Your task to perform on an android device: turn on translation in the chrome app Image 0: 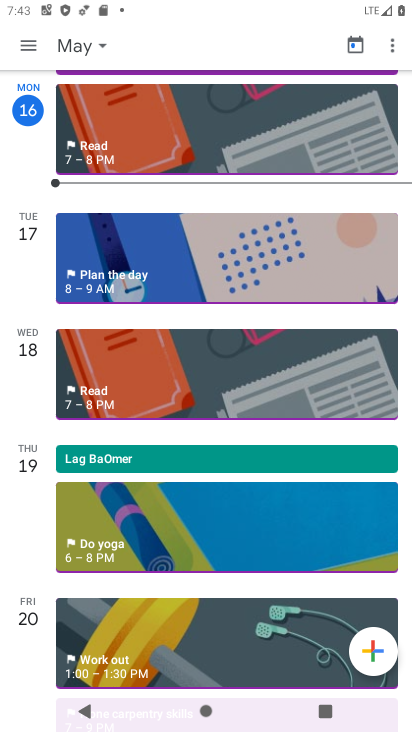
Step 0: press back button
Your task to perform on an android device: turn on translation in the chrome app Image 1: 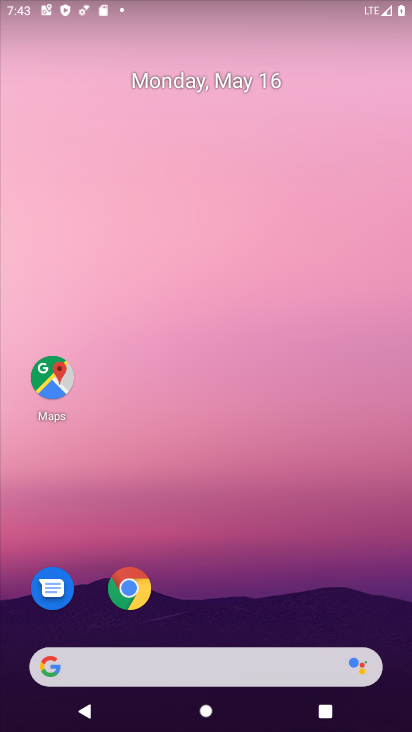
Step 1: drag from (274, 582) to (216, 18)
Your task to perform on an android device: turn on translation in the chrome app Image 2: 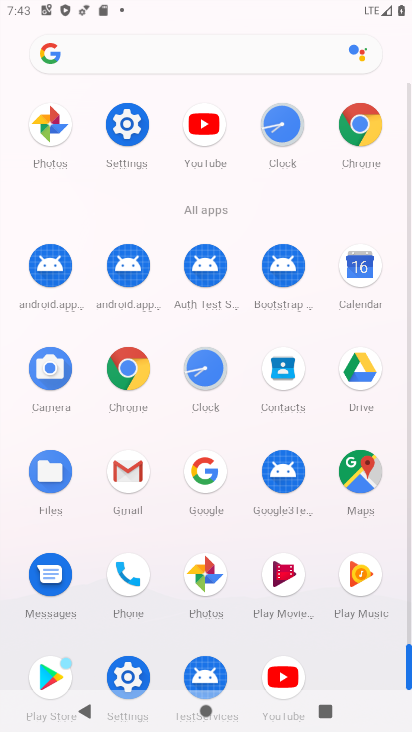
Step 2: drag from (13, 598) to (8, 257)
Your task to perform on an android device: turn on translation in the chrome app Image 3: 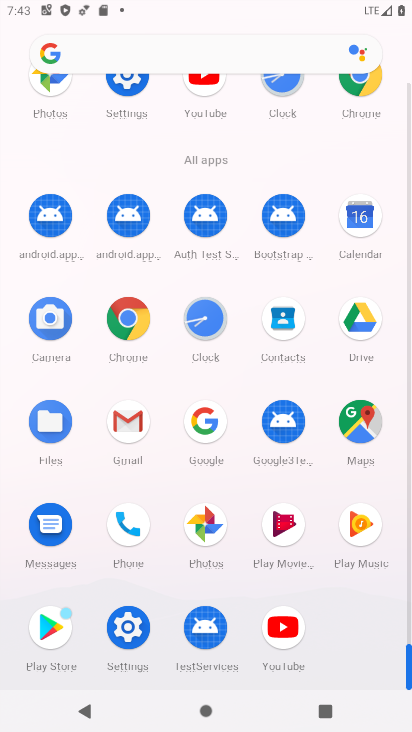
Step 3: click (128, 312)
Your task to perform on an android device: turn on translation in the chrome app Image 4: 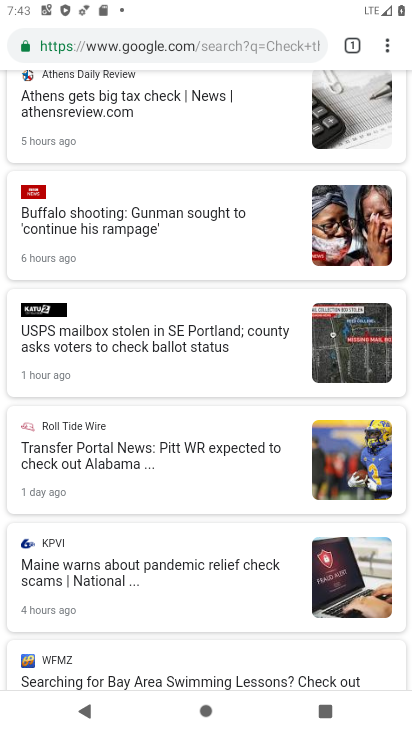
Step 4: click (197, 47)
Your task to perform on an android device: turn on translation in the chrome app Image 5: 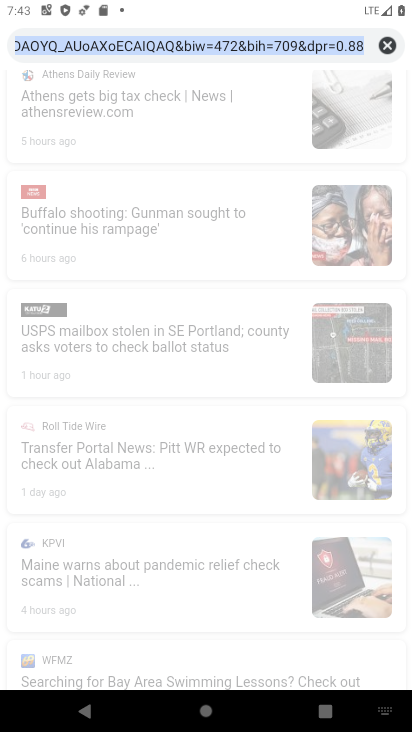
Step 5: click (385, 44)
Your task to perform on an android device: turn on translation in the chrome app Image 6: 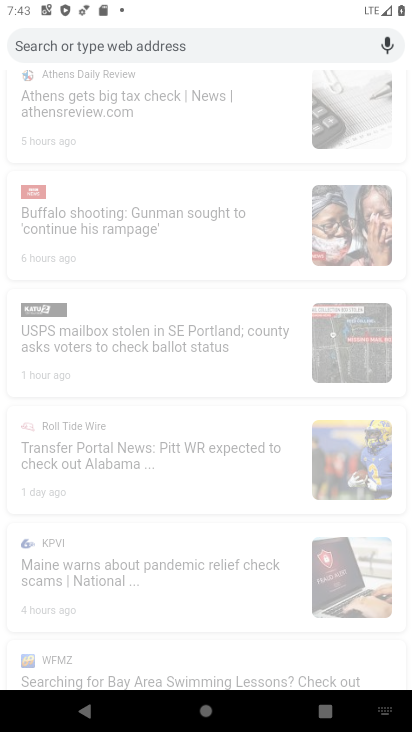
Step 6: press back button
Your task to perform on an android device: turn on translation in the chrome app Image 7: 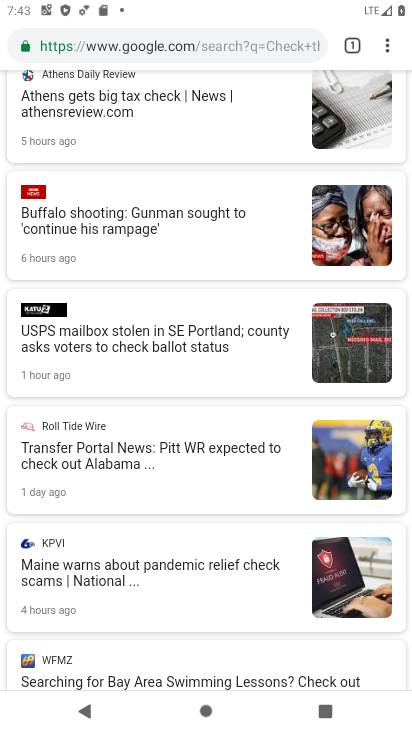
Step 7: drag from (380, 49) to (241, 498)
Your task to perform on an android device: turn on translation in the chrome app Image 8: 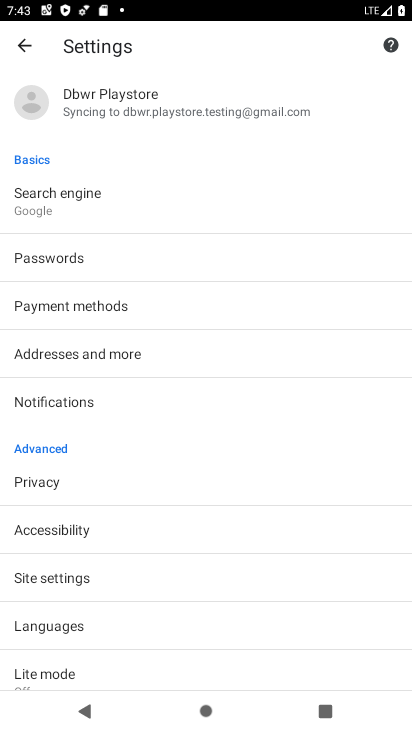
Step 8: drag from (219, 589) to (257, 262)
Your task to perform on an android device: turn on translation in the chrome app Image 9: 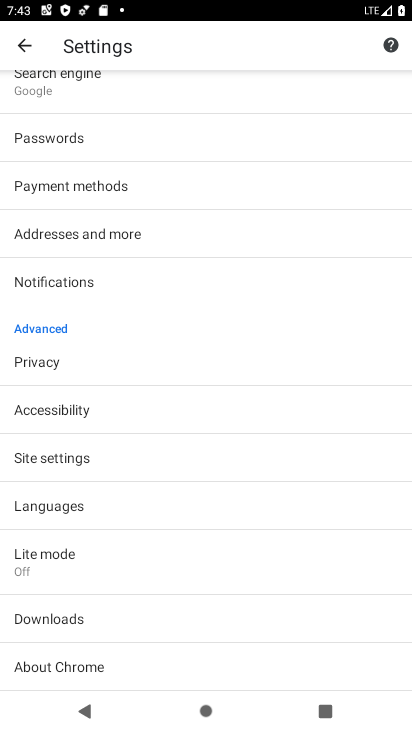
Step 9: click (91, 497)
Your task to perform on an android device: turn on translation in the chrome app Image 10: 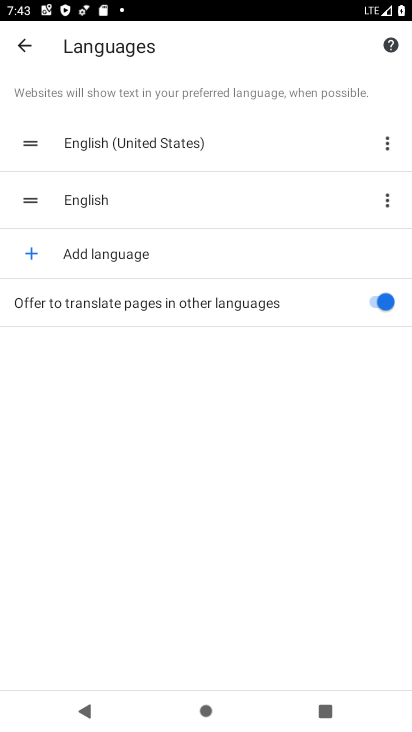
Step 10: task complete